Your task to perform on an android device: change the clock style Image 0: 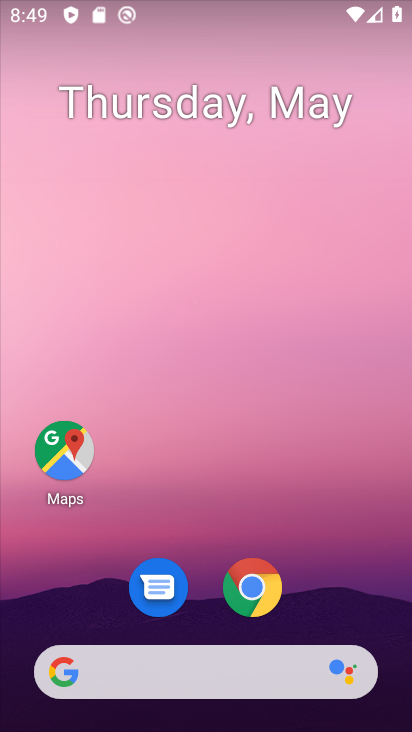
Step 0: drag from (318, 559) to (375, 53)
Your task to perform on an android device: change the clock style Image 1: 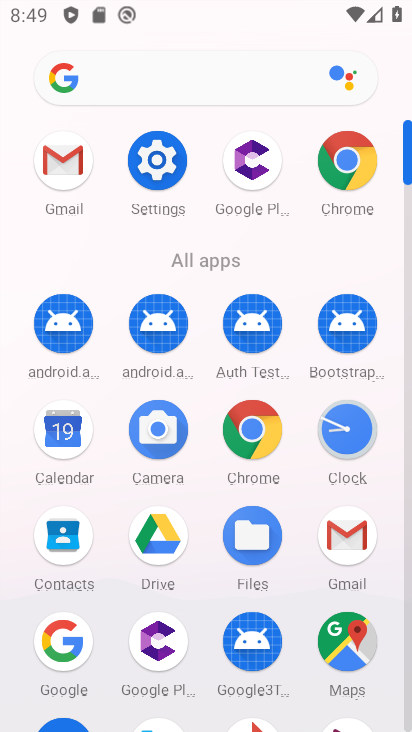
Step 1: click (344, 429)
Your task to perform on an android device: change the clock style Image 2: 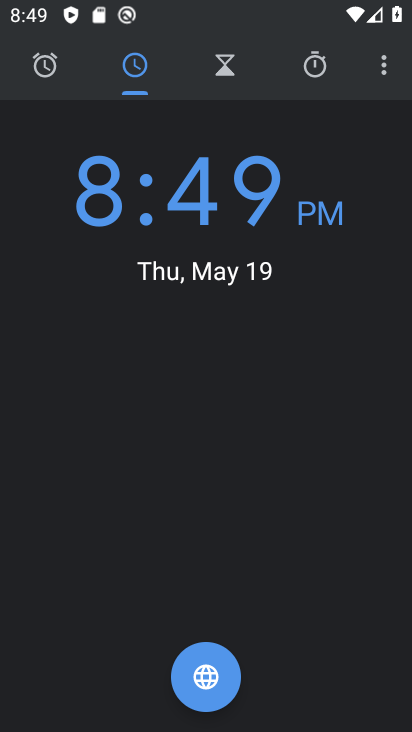
Step 2: click (390, 79)
Your task to perform on an android device: change the clock style Image 3: 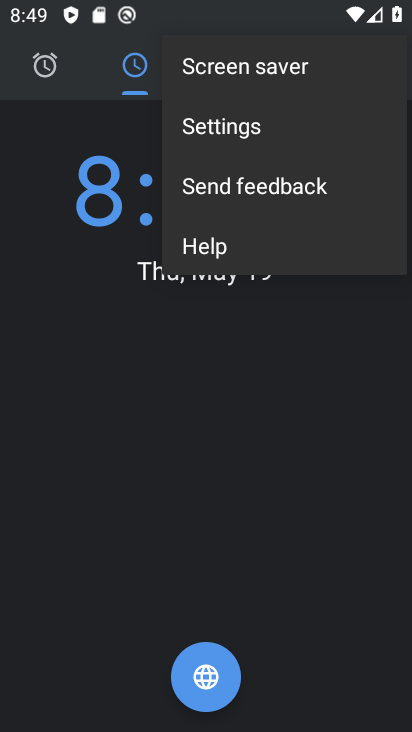
Step 3: click (259, 129)
Your task to perform on an android device: change the clock style Image 4: 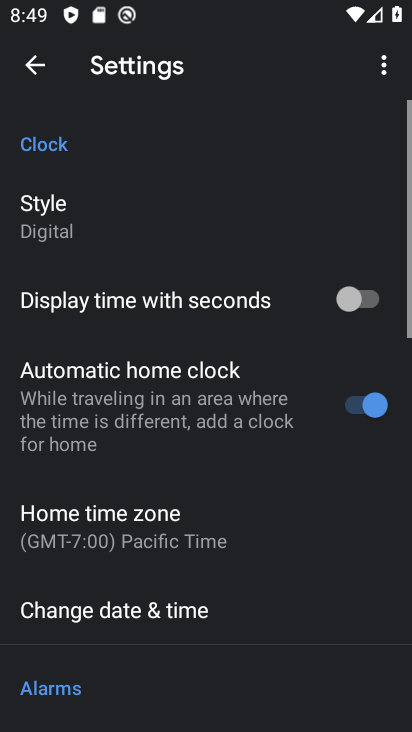
Step 4: click (58, 230)
Your task to perform on an android device: change the clock style Image 5: 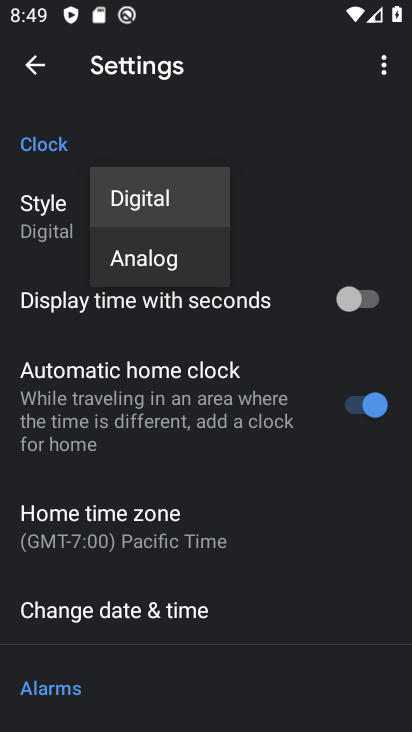
Step 5: click (143, 275)
Your task to perform on an android device: change the clock style Image 6: 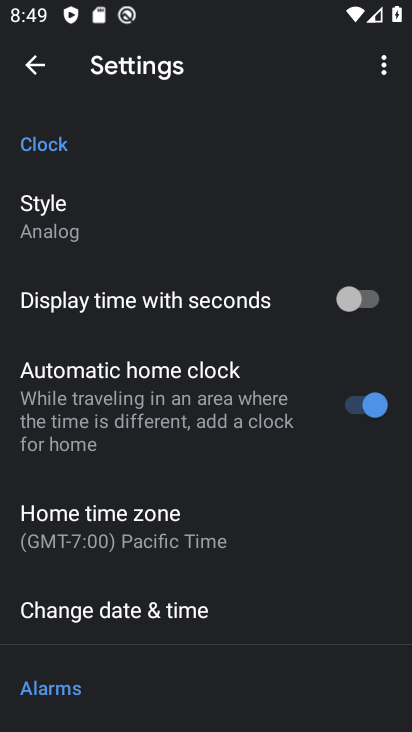
Step 6: task complete